Your task to perform on an android device: change timer sound Image 0: 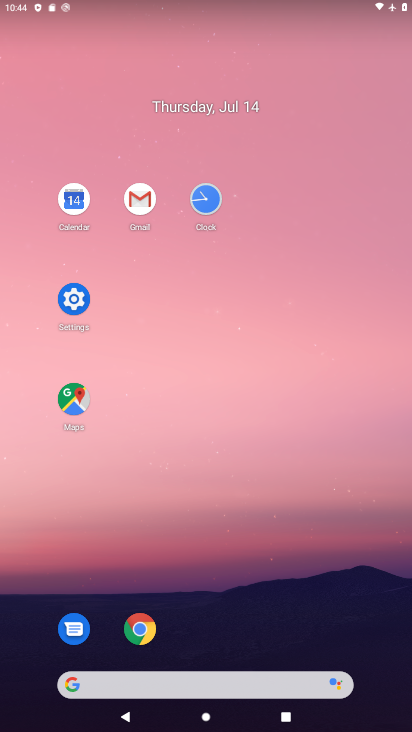
Step 0: click (218, 192)
Your task to perform on an android device: change timer sound Image 1: 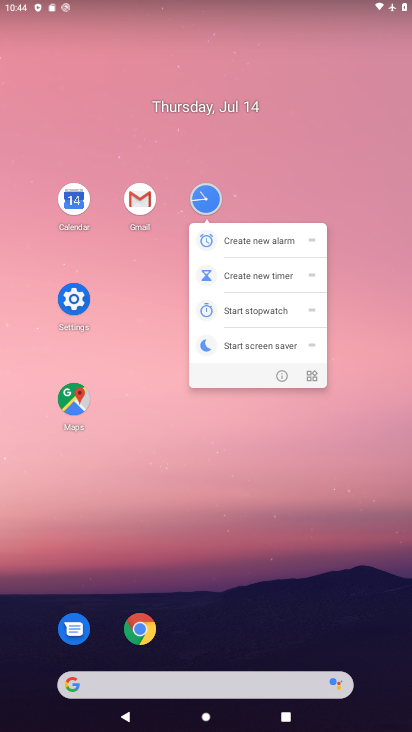
Step 1: click (206, 193)
Your task to perform on an android device: change timer sound Image 2: 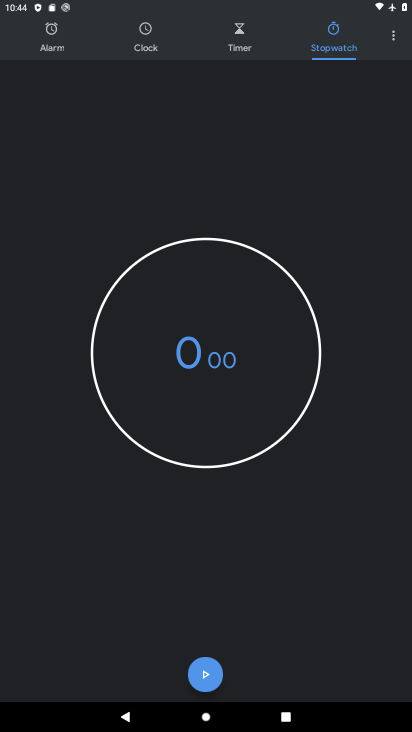
Step 2: click (391, 50)
Your task to perform on an android device: change timer sound Image 3: 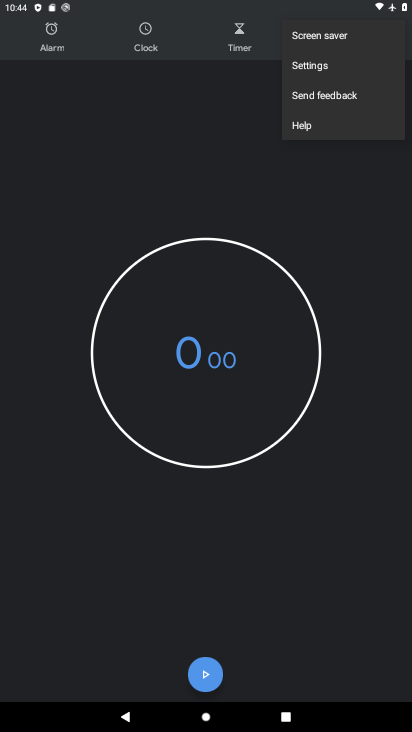
Step 3: click (317, 72)
Your task to perform on an android device: change timer sound Image 4: 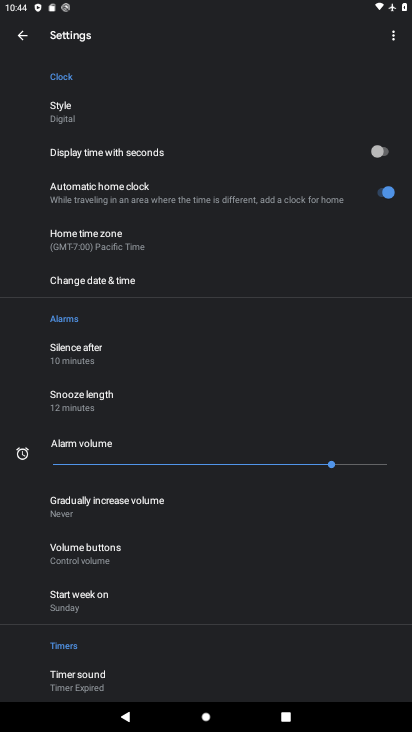
Step 4: drag from (204, 530) to (211, 223)
Your task to perform on an android device: change timer sound Image 5: 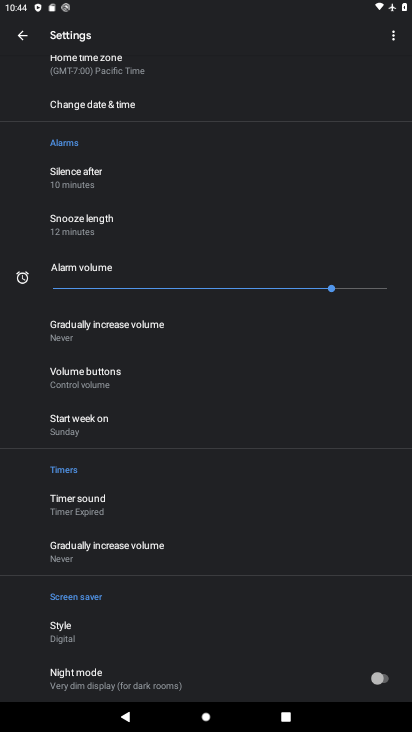
Step 5: drag from (220, 523) to (241, 215)
Your task to perform on an android device: change timer sound Image 6: 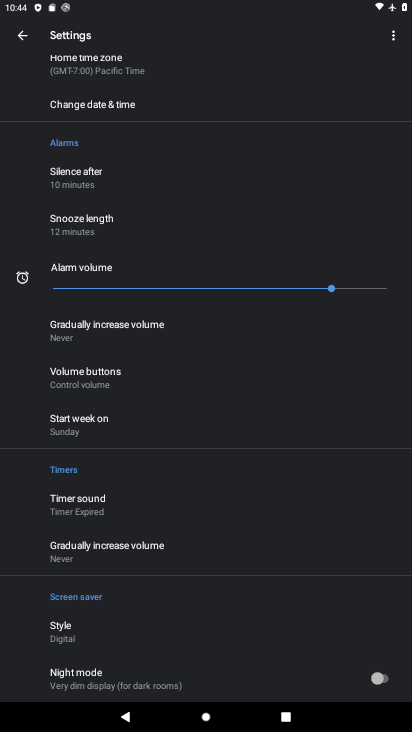
Step 6: drag from (245, 204) to (276, 725)
Your task to perform on an android device: change timer sound Image 7: 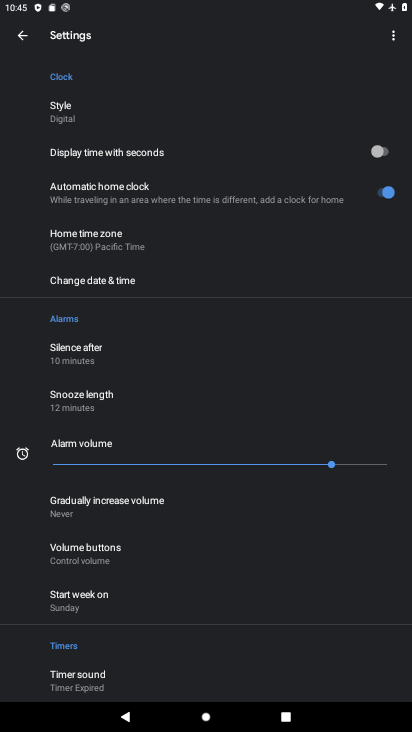
Step 7: drag from (155, 593) to (190, 392)
Your task to perform on an android device: change timer sound Image 8: 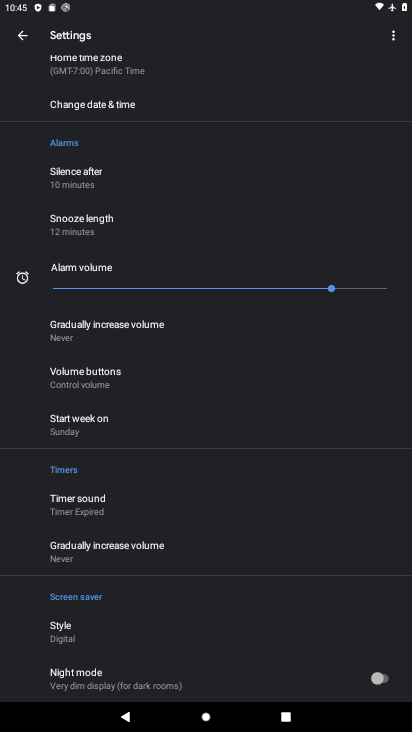
Step 8: click (114, 498)
Your task to perform on an android device: change timer sound Image 9: 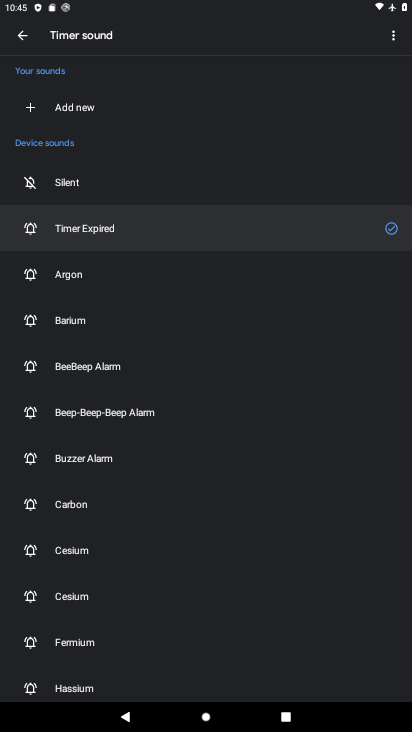
Step 9: click (80, 281)
Your task to perform on an android device: change timer sound Image 10: 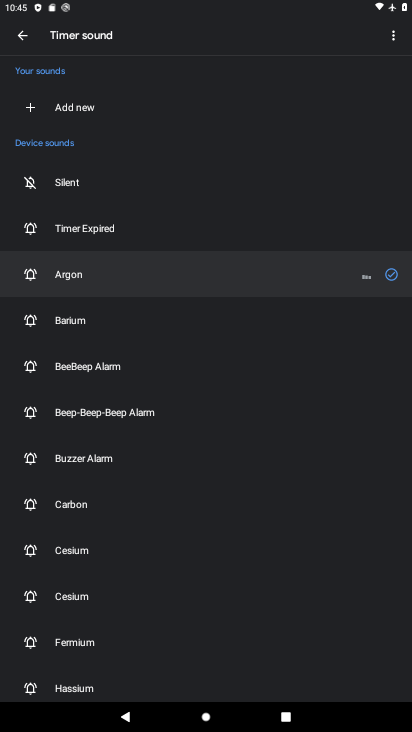
Step 10: task complete